Your task to perform on an android device: Open the web browser Image 0: 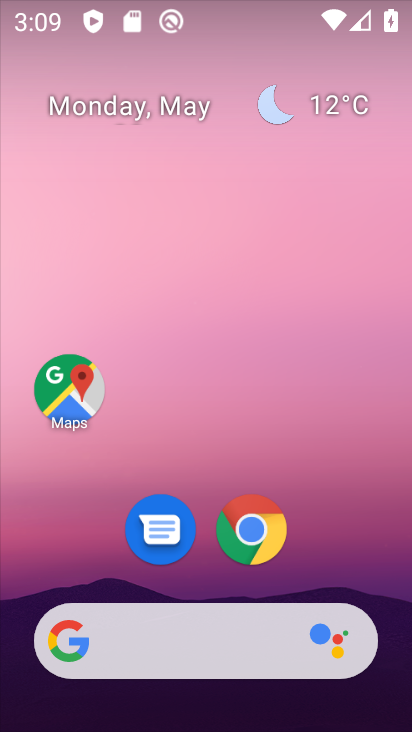
Step 0: click (255, 530)
Your task to perform on an android device: Open the web browser Image 1: 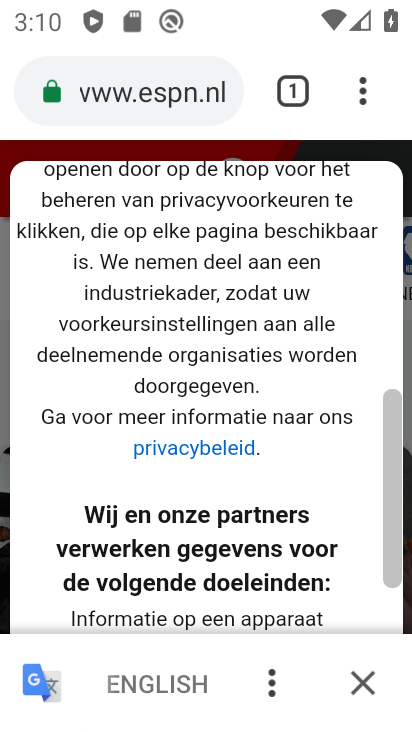
Step 1: task complete